Your task to perform on an android device: Open the calendar app, open the side menu, and click the "Day" option Image 0: 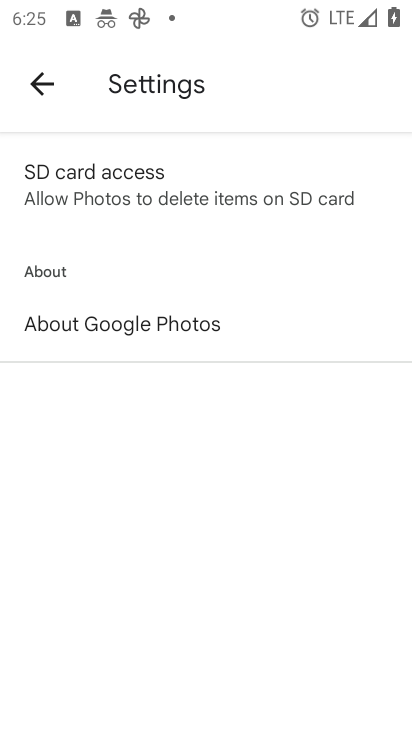
Step 0: press home button
Your task to perform on an android device: Open the calendar app, open the side menu, and click the "Day" option Image 1: 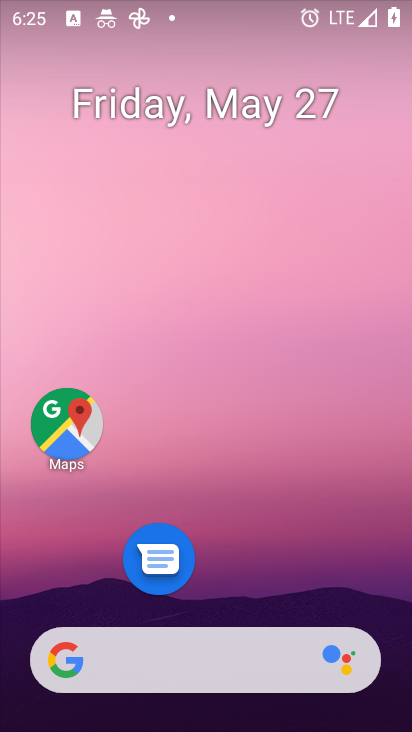
Step 1: drag from (191, 649) to (198, 76)
Your task to perform on an android device: Open the calendar app, open the side menu, and click the "Day" option Image 2: 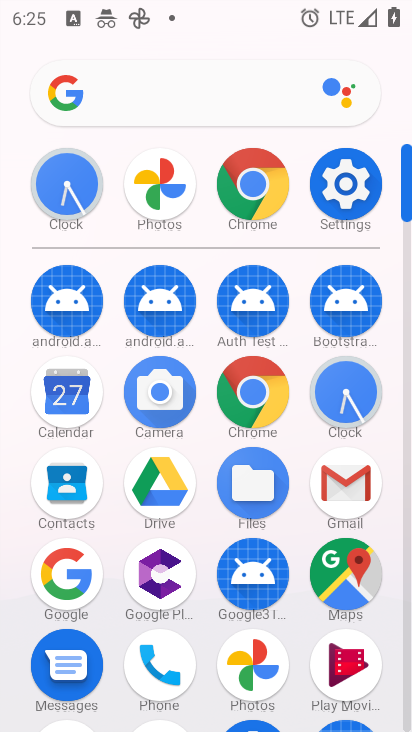
Step 2: click (82, 398)
Your task to perform on an android device: Open the calendar app, open the side menu, and click the "Day" option Image 3: 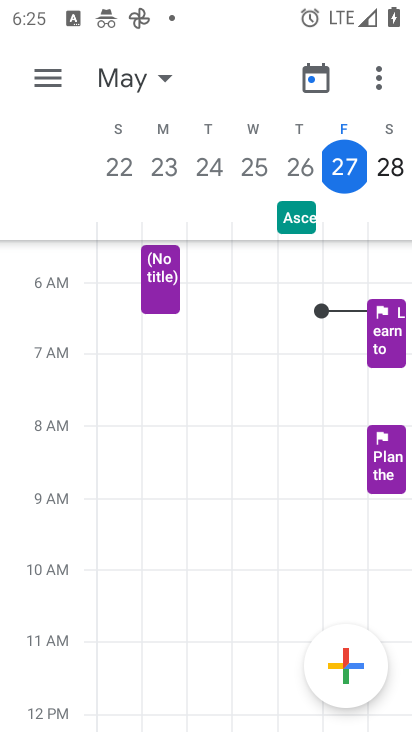
Step 3: click (51, 69)
Your task to perform on an android device: Open the calendar app, open the side menu, and click the "Day" option Image 4: 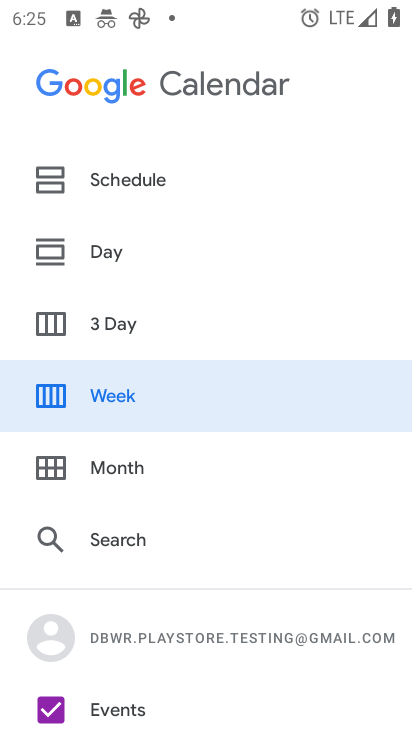
Step 4: click (131, 244)
Your task to perform on an android device: Open the calendar app, open the side menu, and click the "Day" option Image 5: 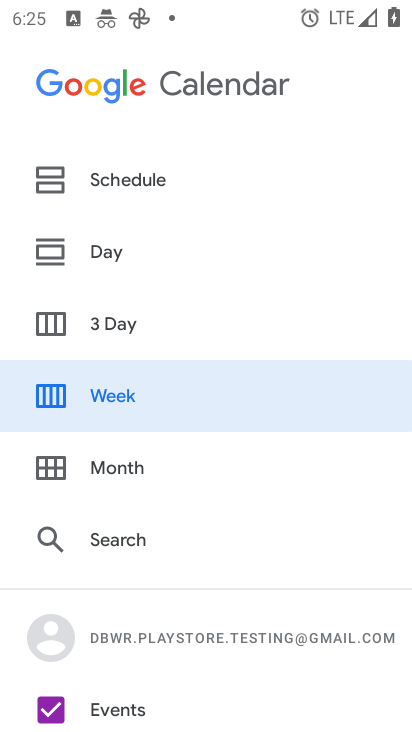
Step 5: click (83, 255)
Your task to perform on an android device: Open the calendar app, open the side menu, and click the "Day" option Image 6: 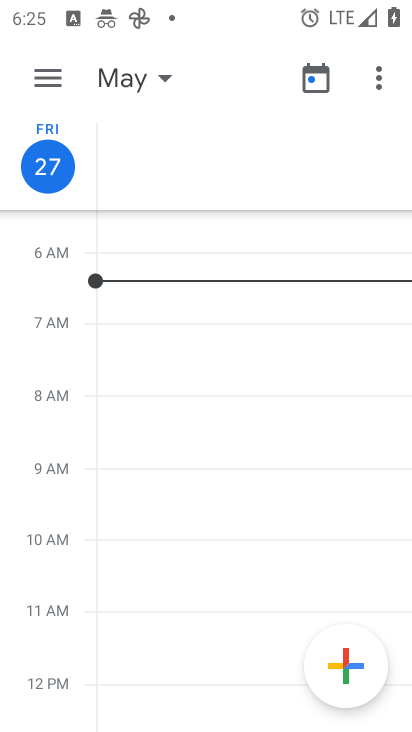
Step 6: task complete